Your task to perform on an android device: check out phone information Image 0: 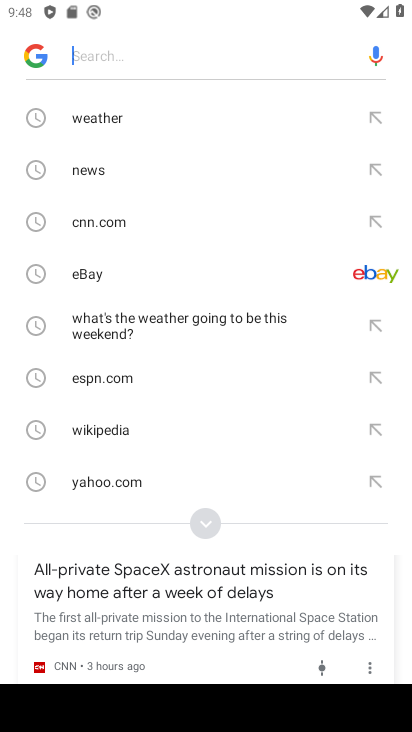
Step 0: press home button
Your task to perform on an android device: check out phone information Image 1: 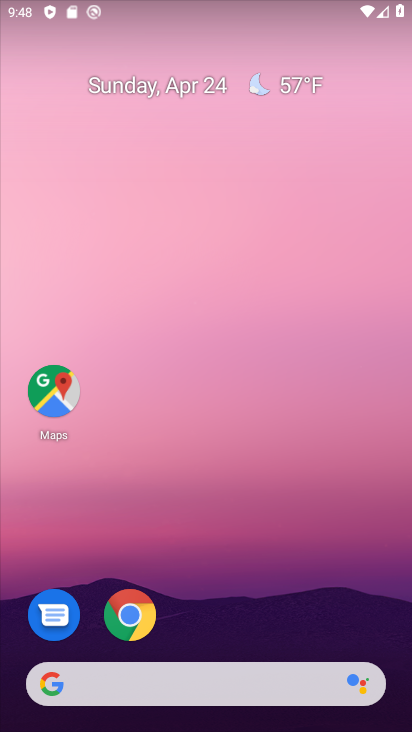
Step 1: drag from (359, 635) to (328, 22)
Your task to perform on an android device: check out phone information Image 2: 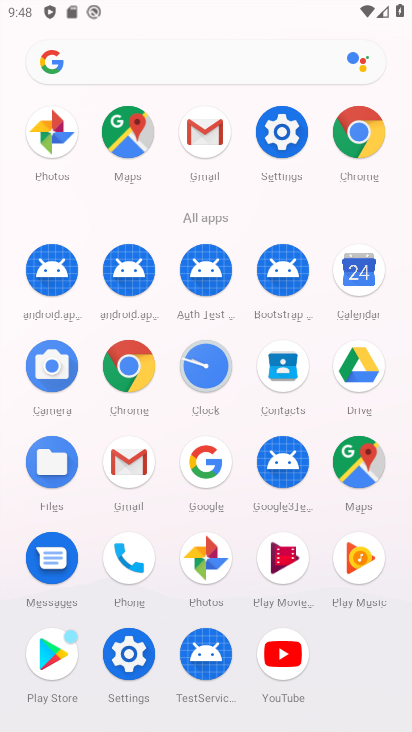
Step 2: click (128, 655)
Your task to perform on an android device: check out phone information Image 3: 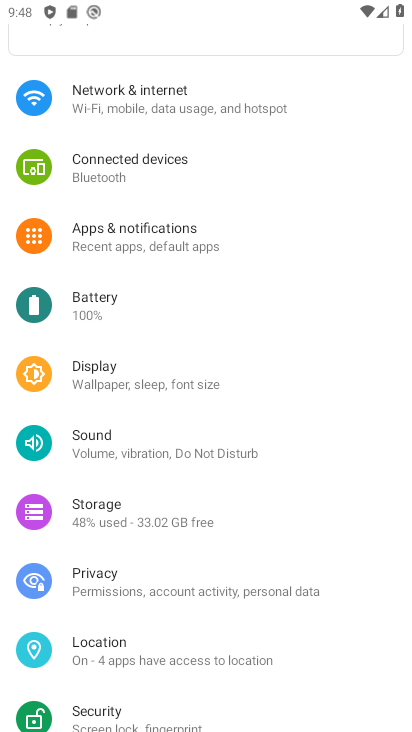
Step 3: drag from (326, 658) to (299, 127)
Your task to perform on an android device: check out phone information Image 4: 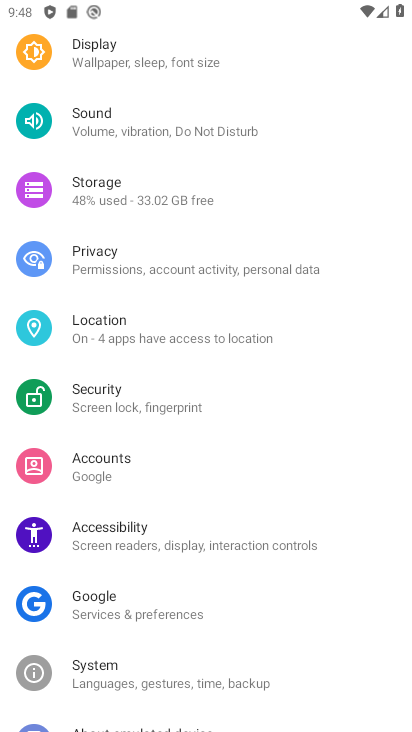
Step 4: drag from (322, 646) to (331, 343)
Your task to perform on an android device: check out phone information Image 5: 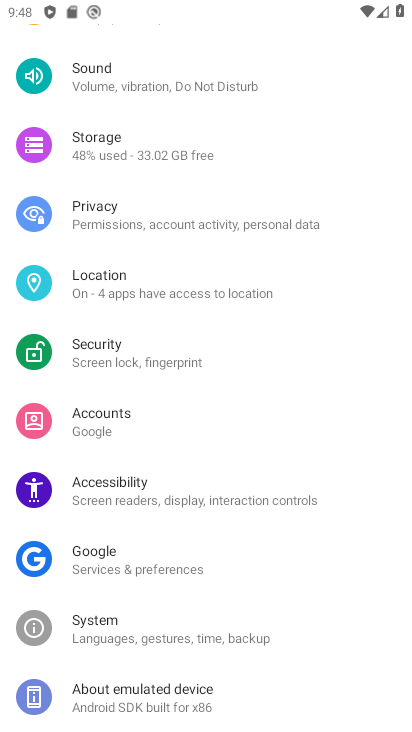
Step 5: drag from (312, 658) to (316, 355)
Your task to perform on an android device: check out phone information Image 6: 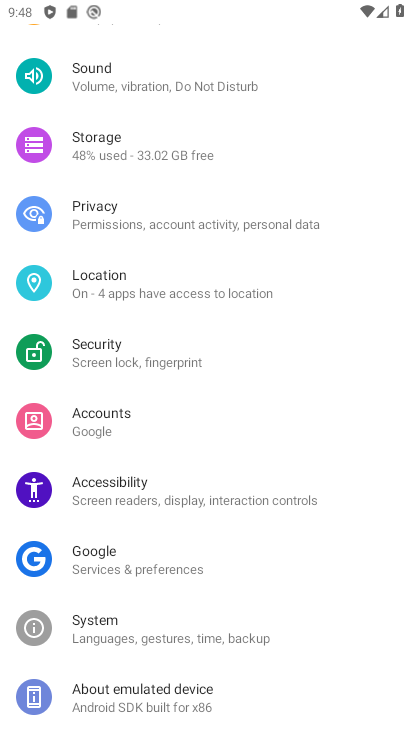
Step 6: click (115, 682)
Your task to perform on an android device: check out phone information Image 7: 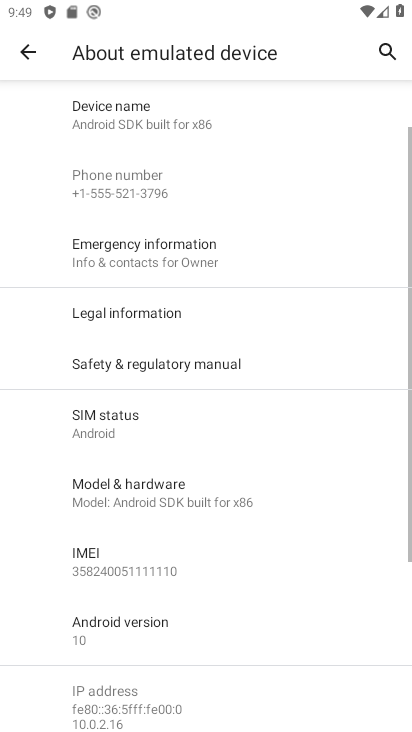
Step 7: task complete